Your task to perform on an android device: add a contact Image 0: 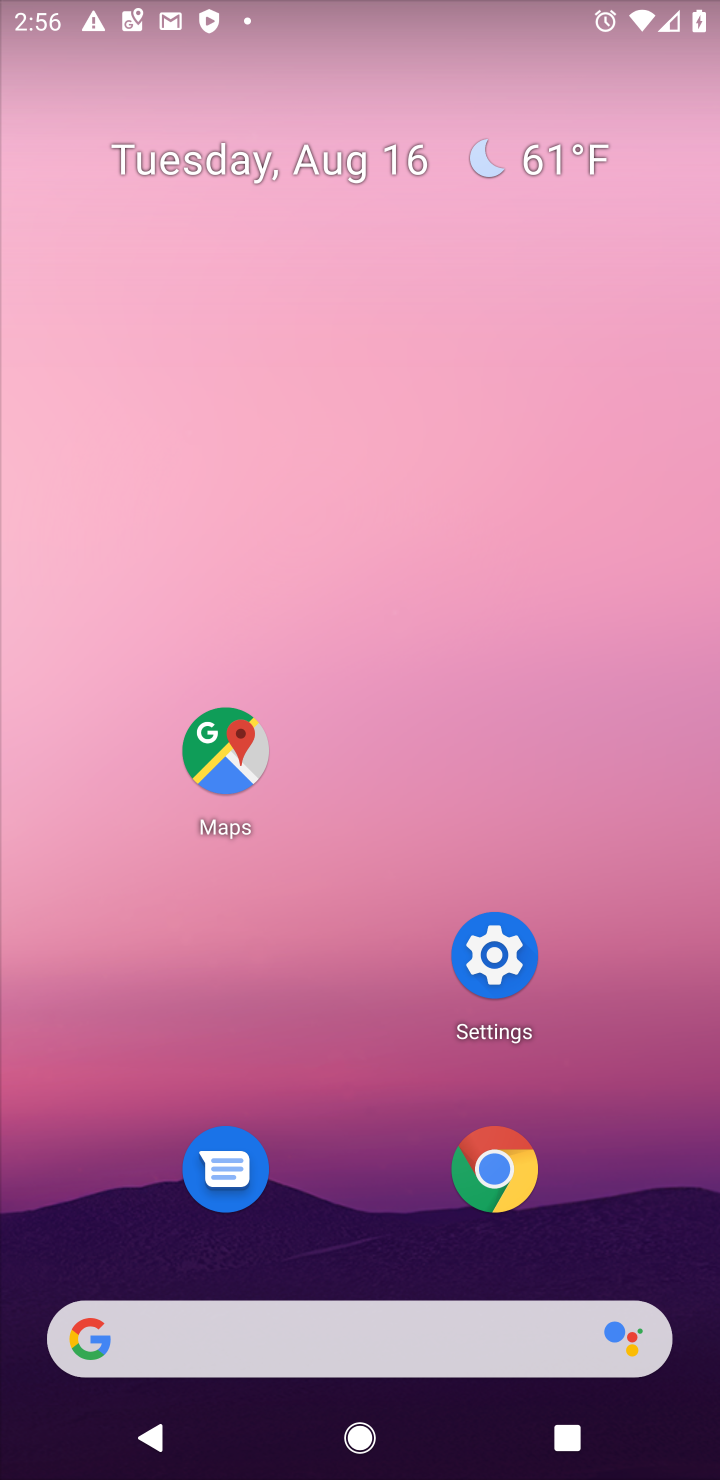
Step 0: press home button
Your task to perform on an android device: add a contact Image 1: 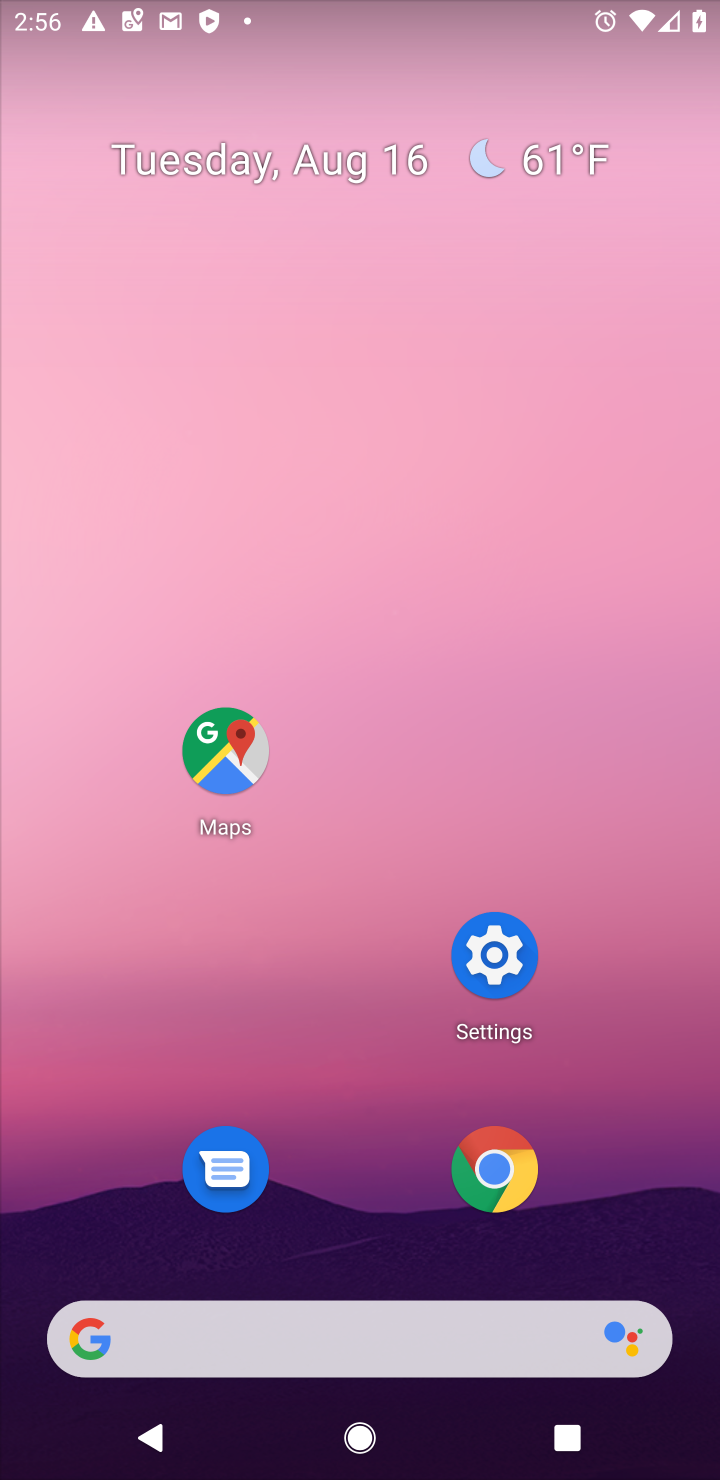
Step 1: drag from (394, 1197) to (562, 176)
Your task to perform on an android device: add a contact Image 2: 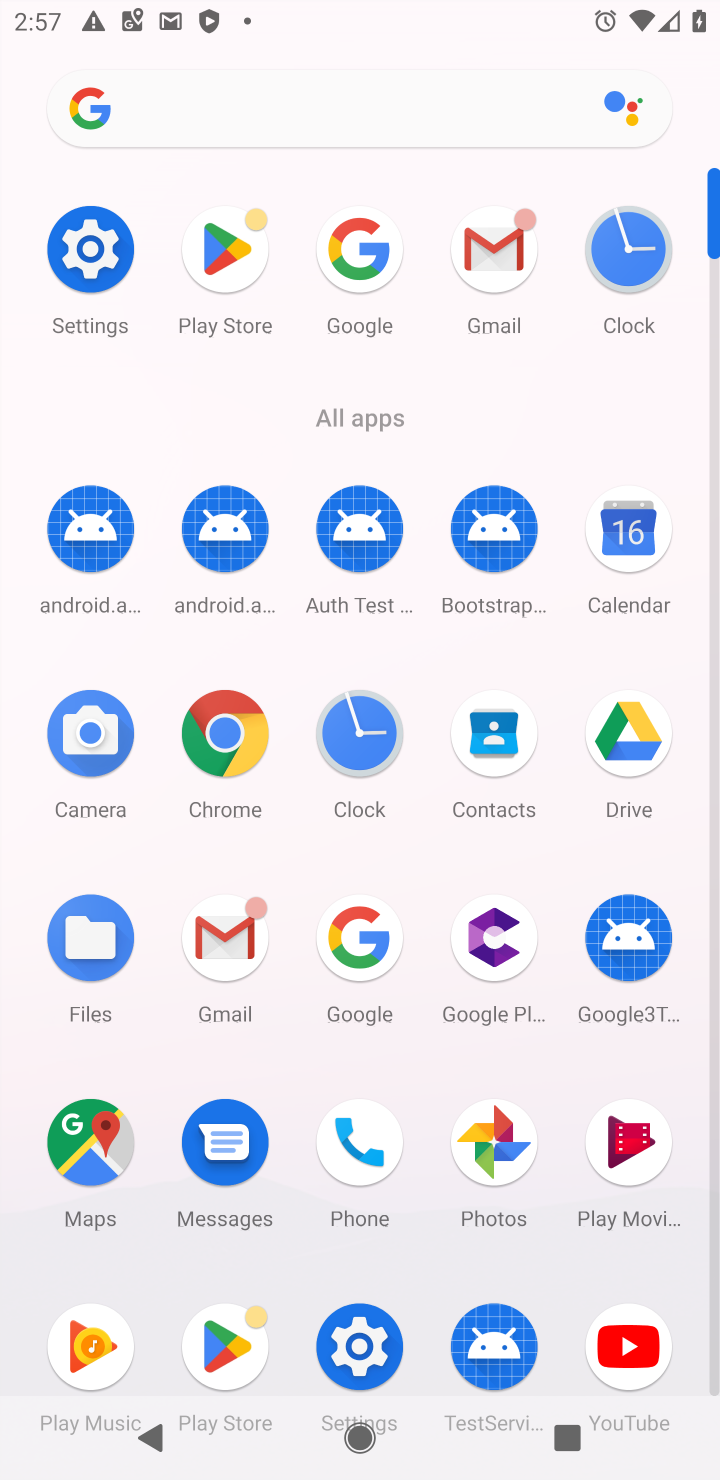
Step 2: click (481, 738)
Your task to perform on an android device: add a contact Image 3: 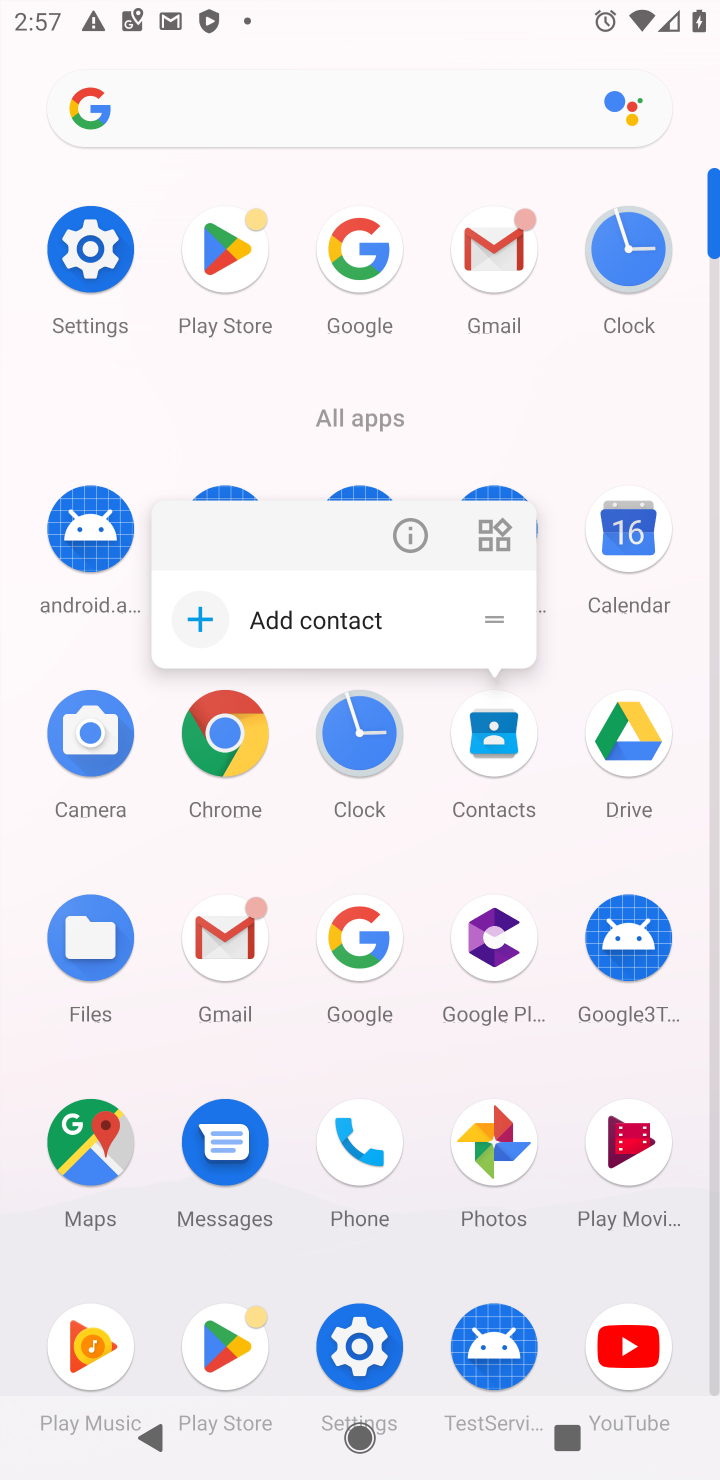
Step 3: click (481, 740)
Your task to perform on an android device: add a contact Image 4: 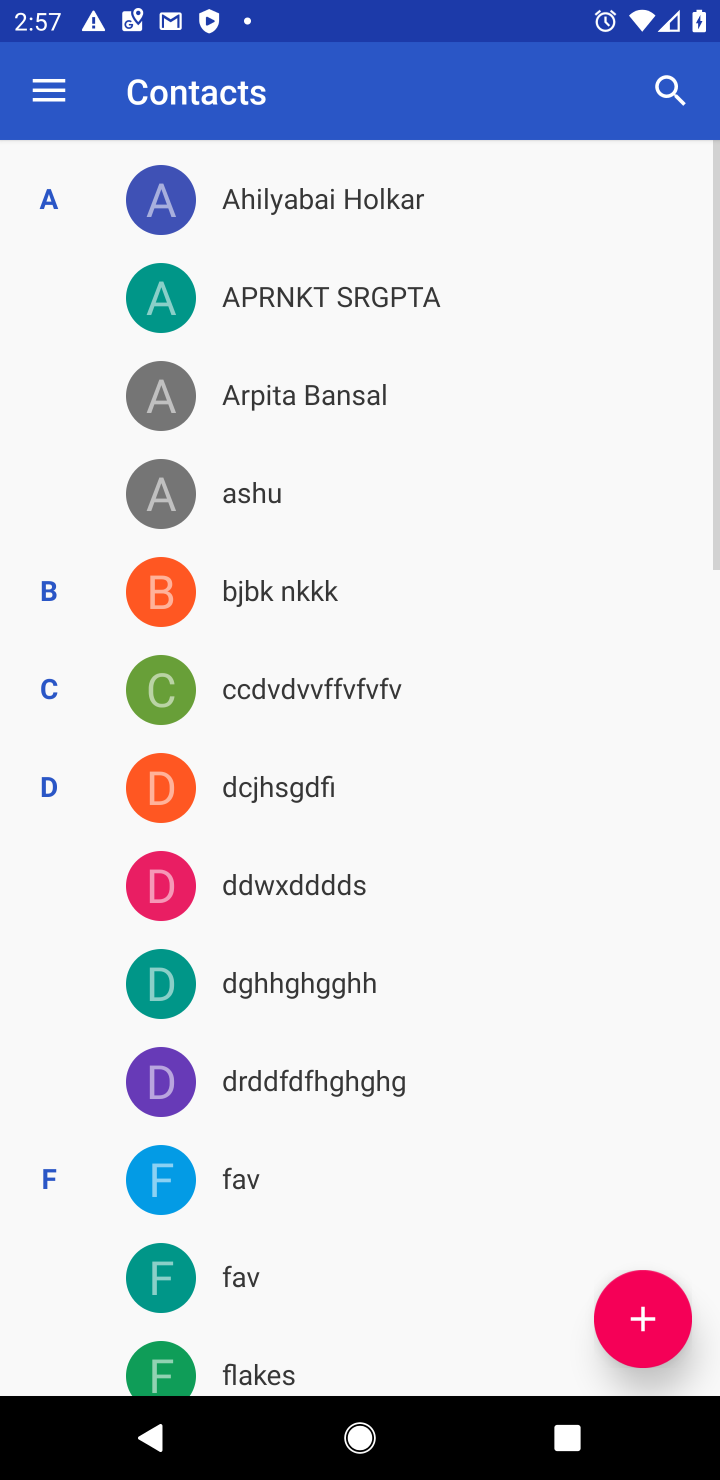
Step 4: click (635, 1316)
Your task to perform on an android device: add a contact Image 5: 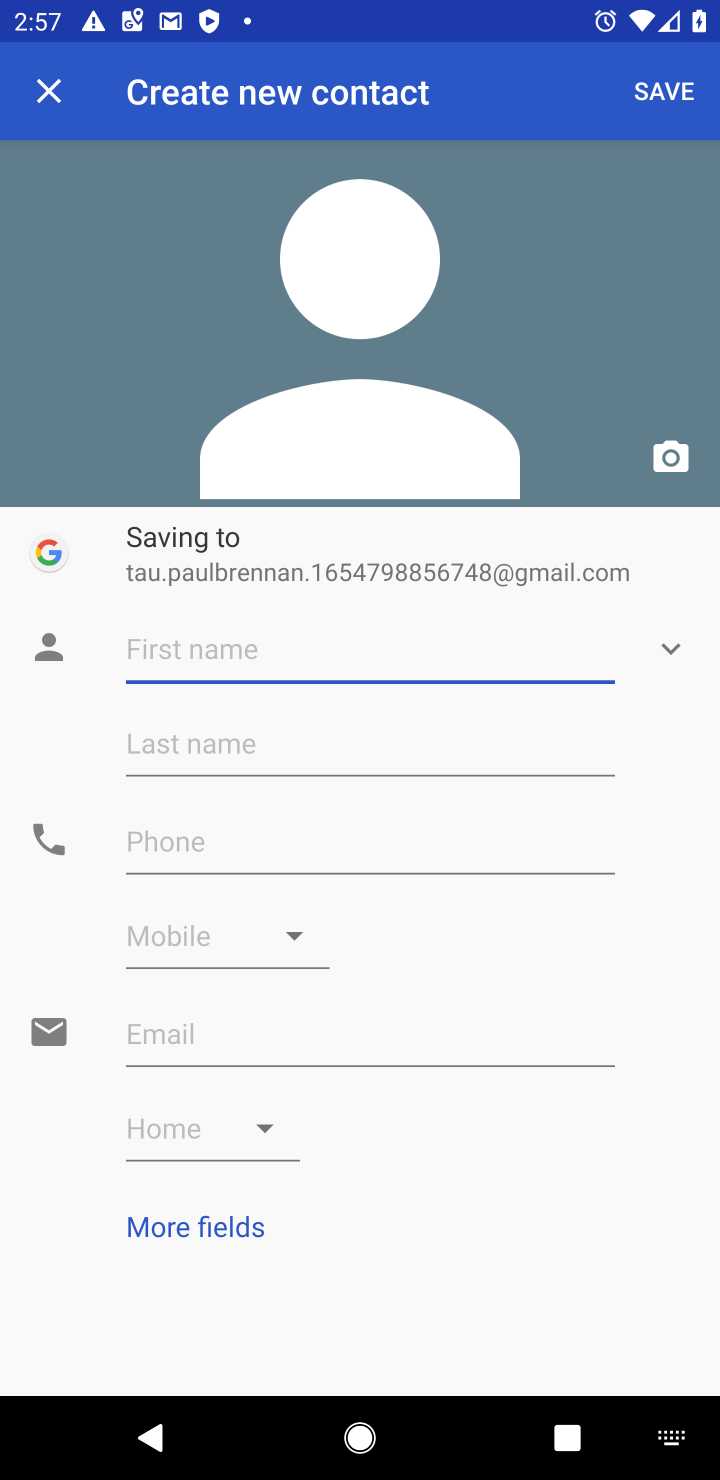
Step 5: type "qyetddf"
Your task to perform on an android device: add a contact Image 6: 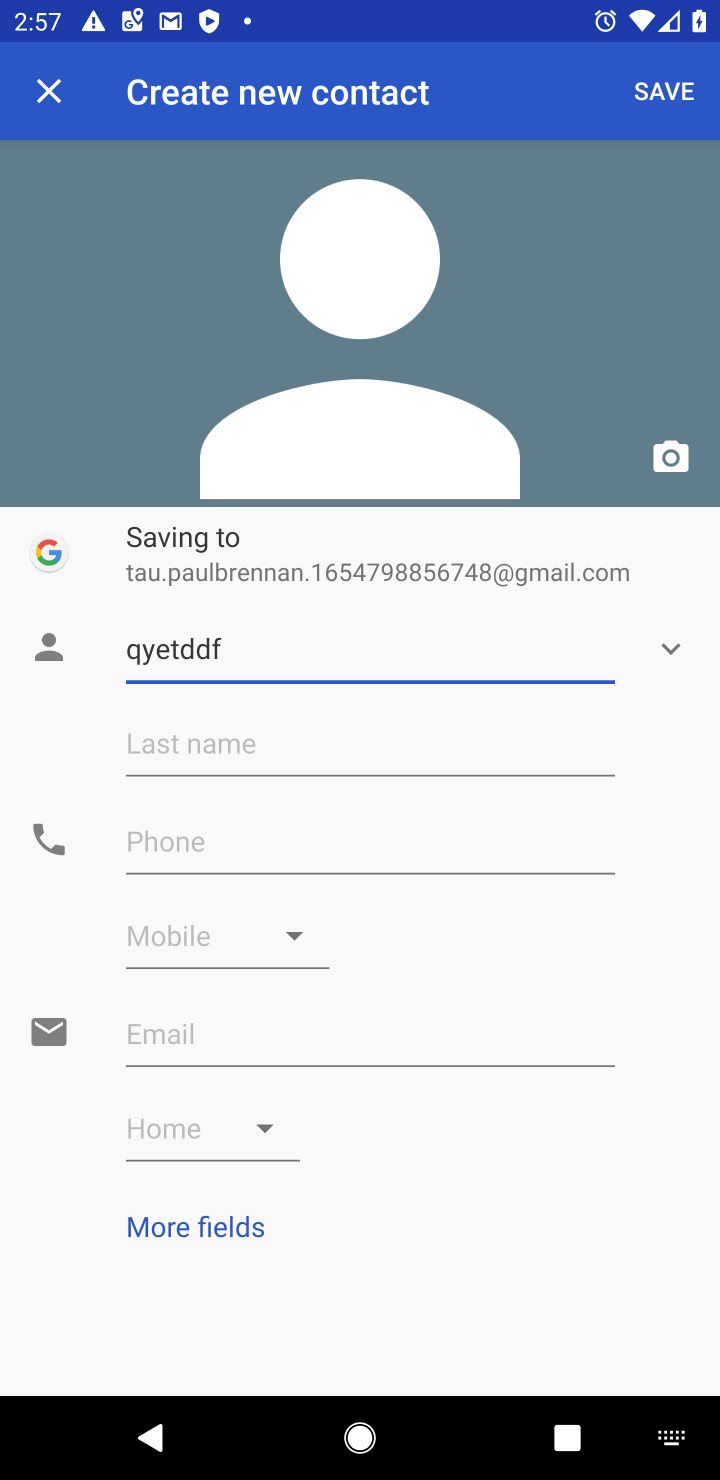
Step 6: click (212, 844)
Your task to perform on an android device: add a contact Image 7: 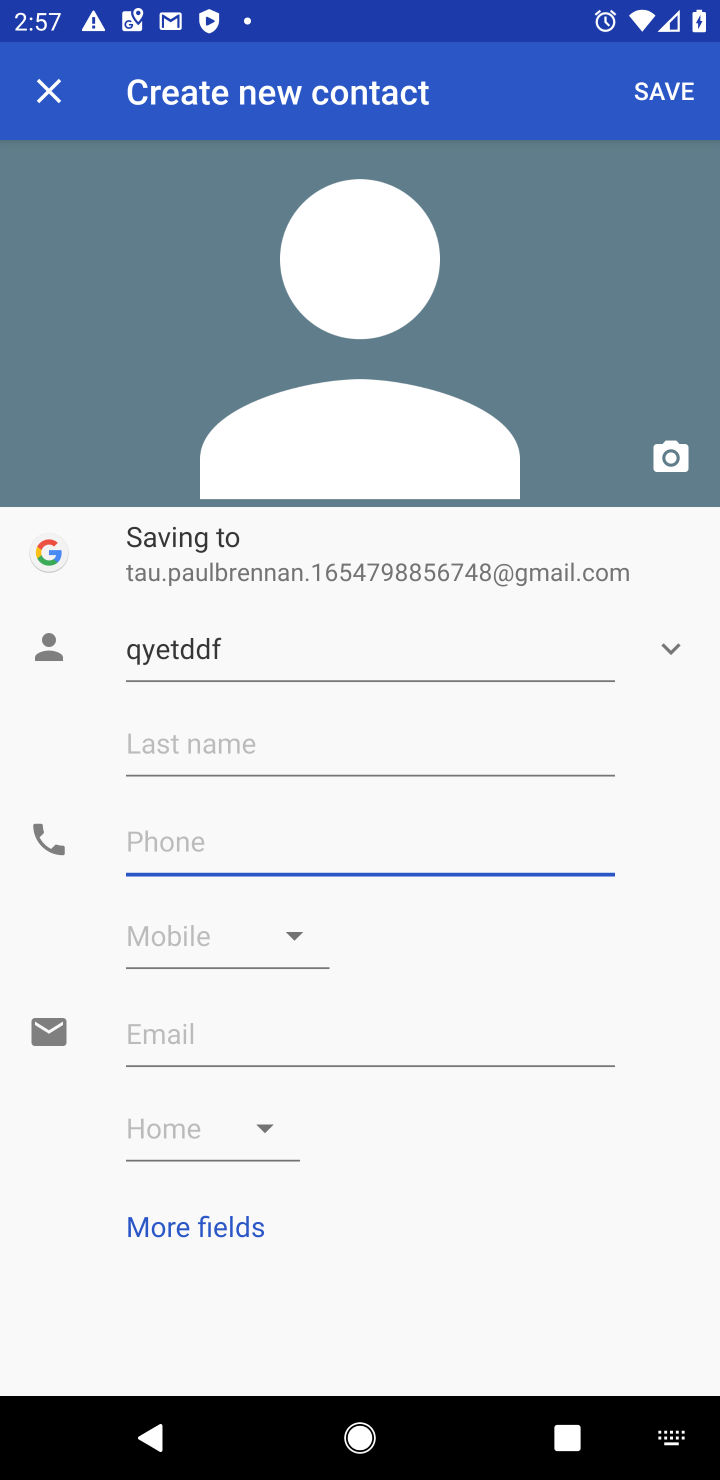
Step 7: type "1654488"
Your task to perform on an android device: add a contact Image 8: 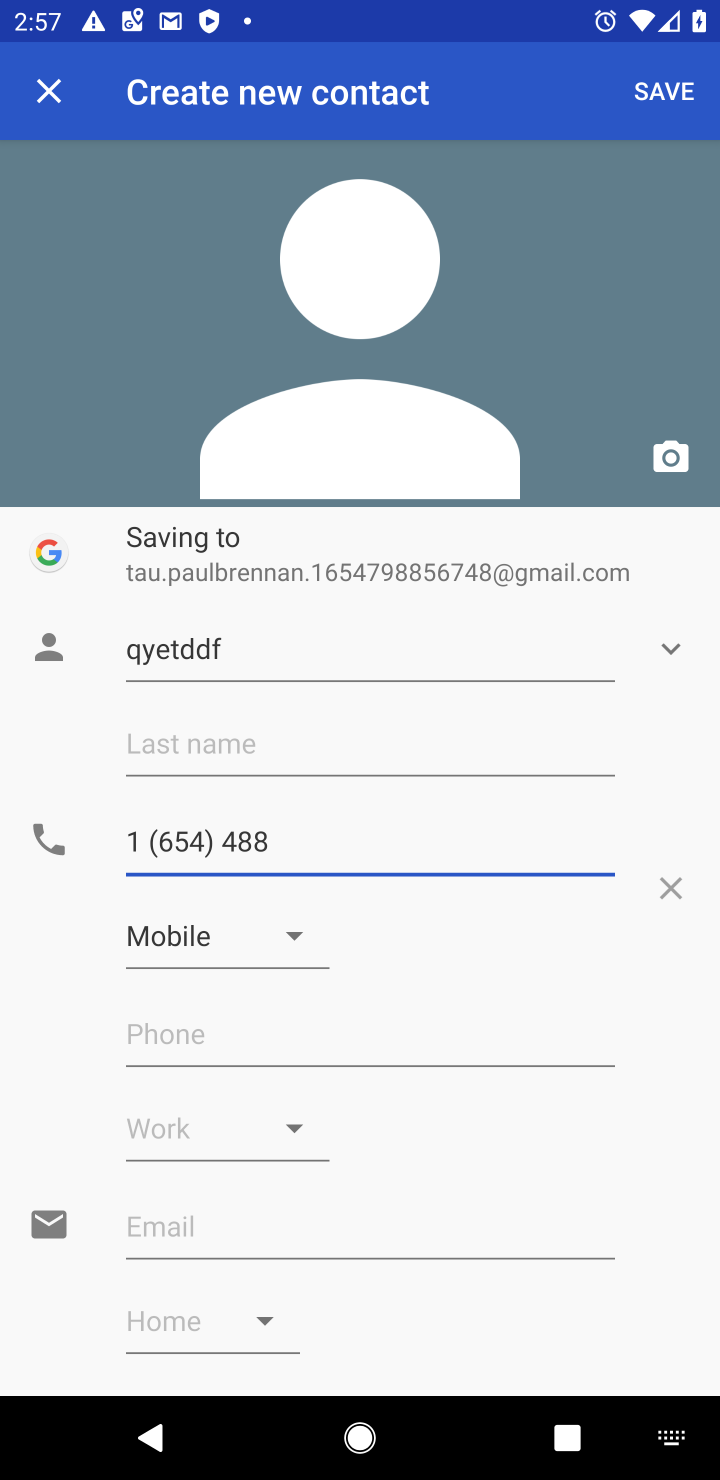
Step 8: click (671, 90)
Your task to perform on an android device: add a contact Image 9: 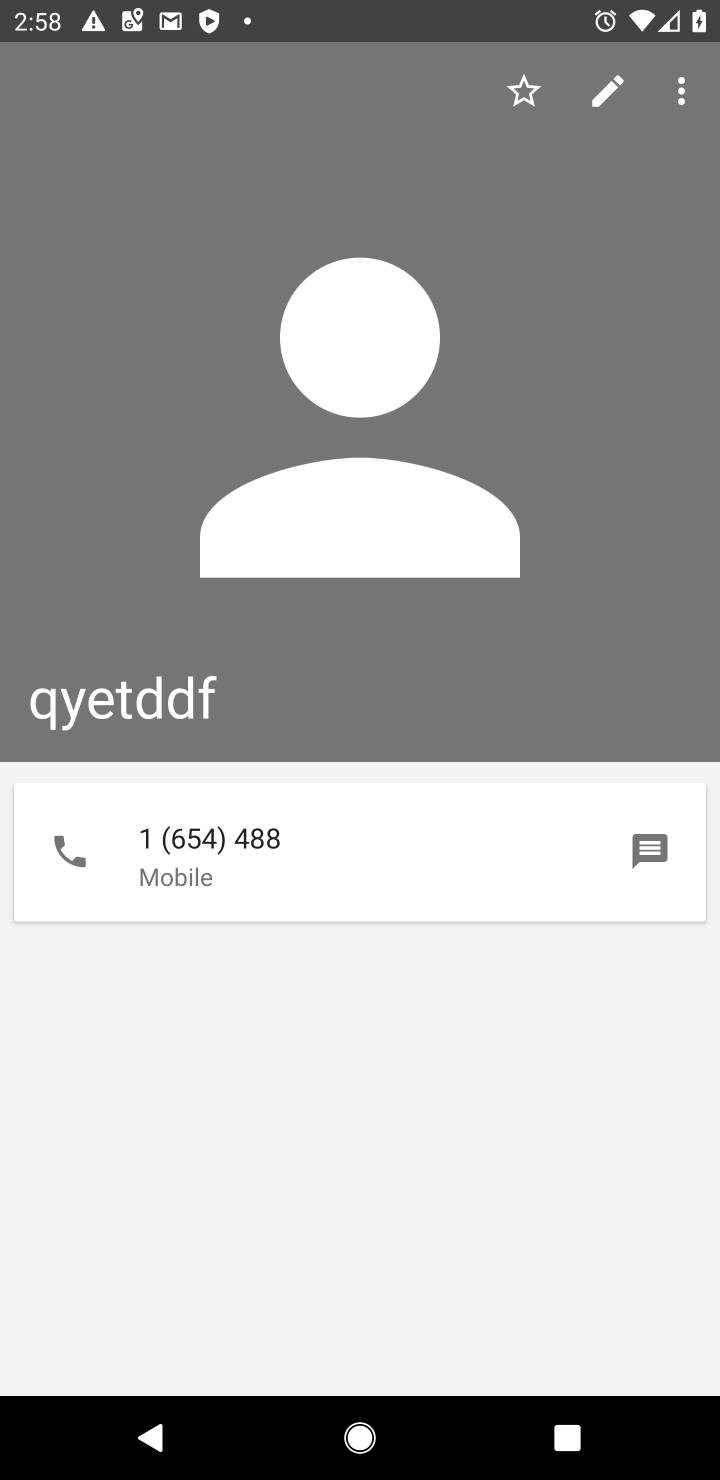
Step 9: task complete